Your task to perform on an android device: Open battery settings Image 0: 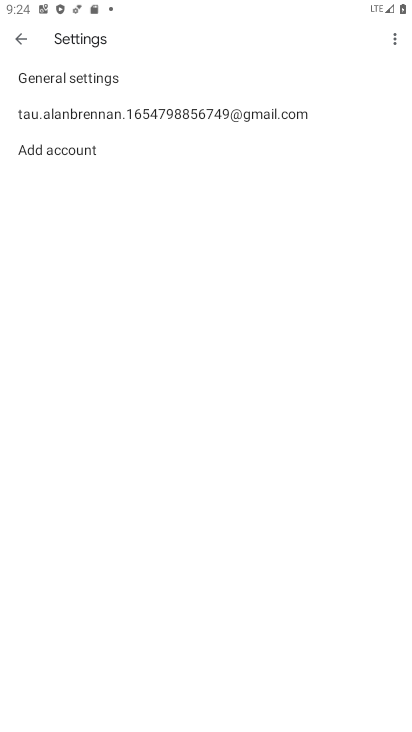
Step 0: press home button
Your task to perform on an android device: Open battery settings Image 1: 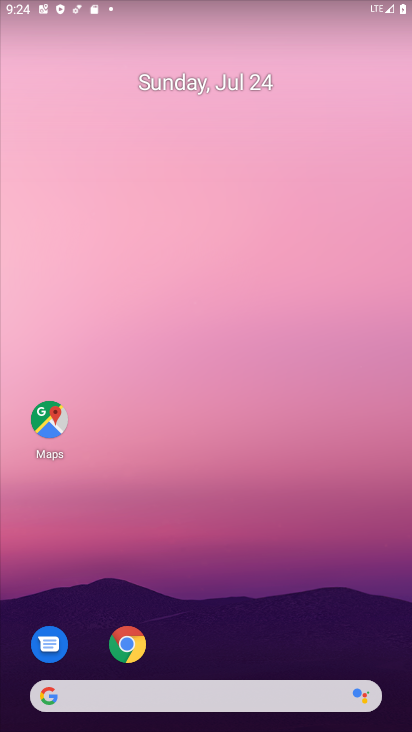
Step 1: drag from (31, 482) to (206, 78)
Your task to perform on an android device: Open battery settings Image 2: 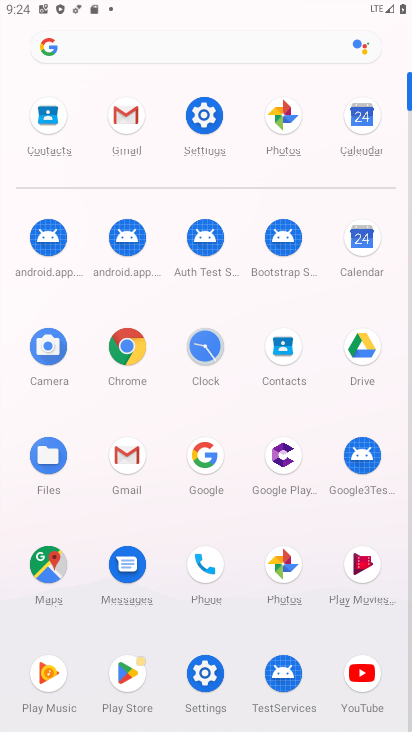
Step 2: click (200, 119)
Your task to perform on an android device: Open battery settings Image 3: 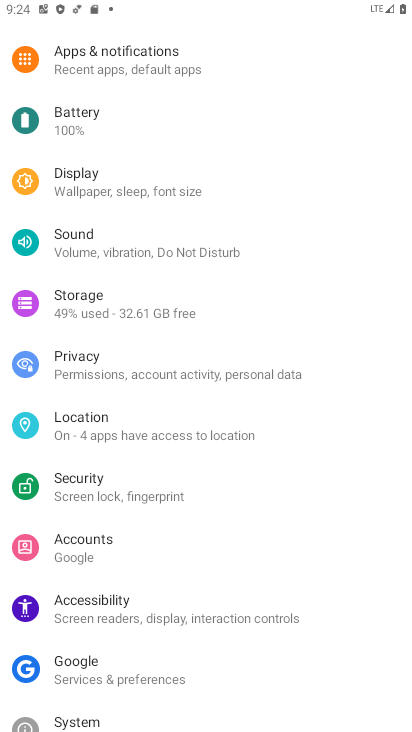
Step 3: click (110, 120)
Your task to perform on an android device: Open battery settings Image 4: 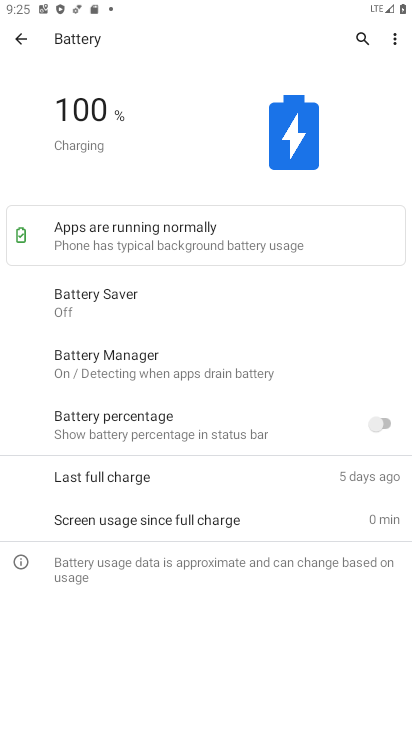
Step 4: click (110, 119)
Your task to perform on an android device: Open battery settings Image 5: 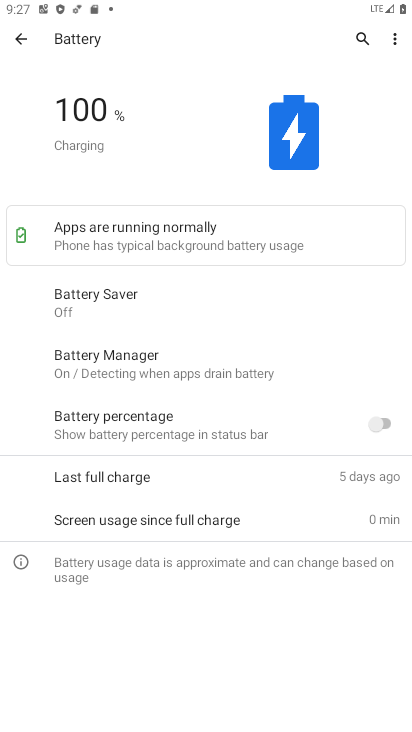
Step 5: task complete